Your task to perform on an android device: make emails show in primary in the gmail app Image 0: 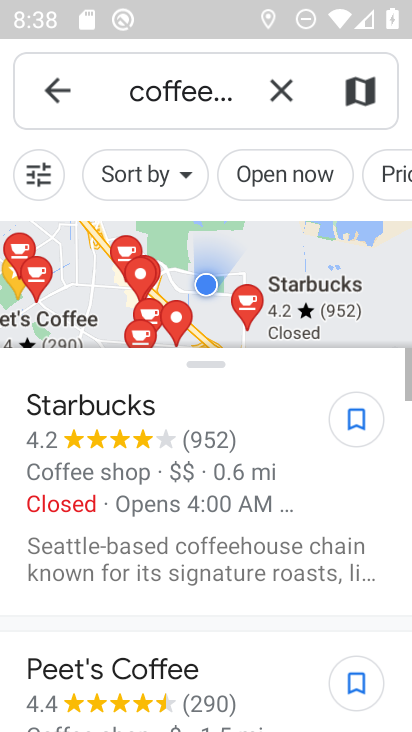
Step 0: press back button
Your task to perform on an android device: make emails show in primary in the gmail app Image 1: 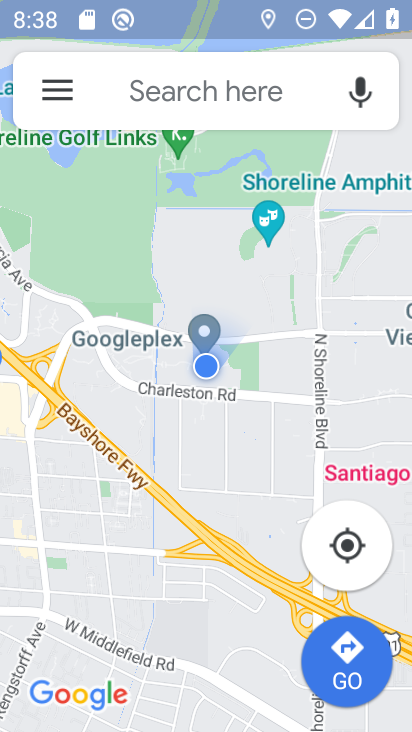
Step 1: press home button
Your task to perform on an android device: make emails show in primary in the gmail app Image 2: 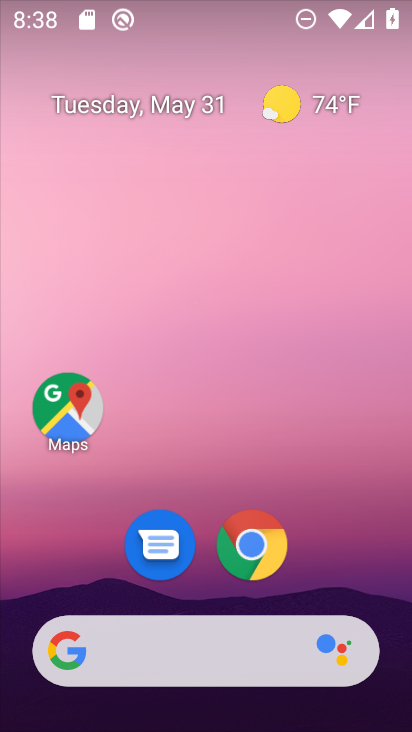
Step 2: drag from (343, 538) to (318, 5)
Your task to perform on an android device: make emails show in primary in the gmail app Image 3: 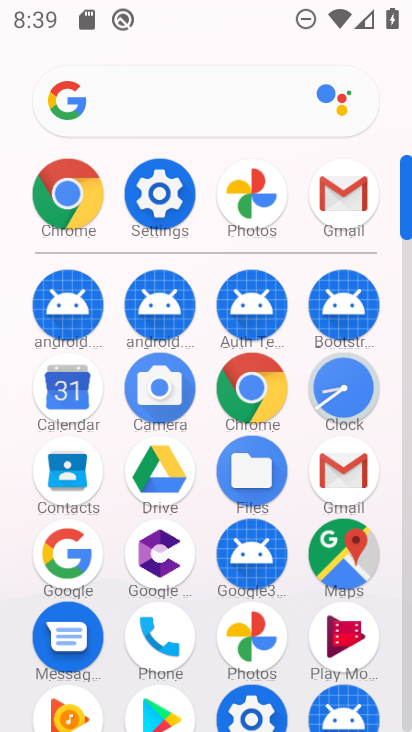
Step 3: click (345, 180)
Your task to perform on an android device: make emails show in primary in the gmail app Image 4: 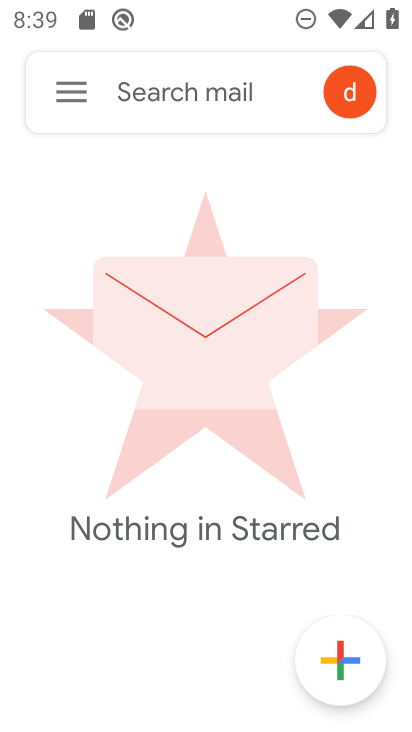
Step 4: click (58, 90)
Your task to perform on an android device: make emails show in primary in the gmail app Image 5: 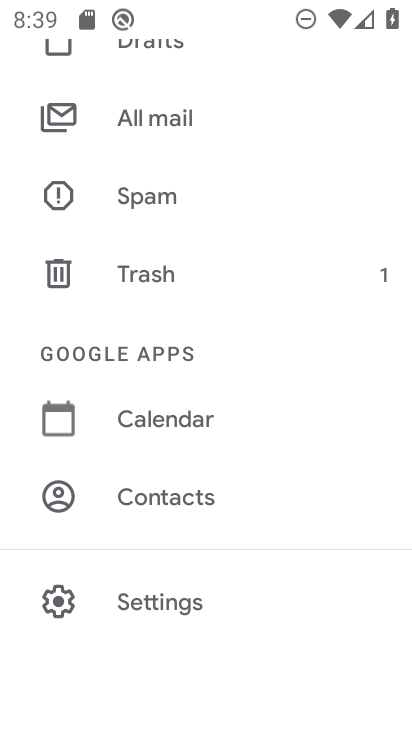
Step 5: click (154, 596)
Your task to perform on an android device: make emails show in primary in the gmail app Image 6: 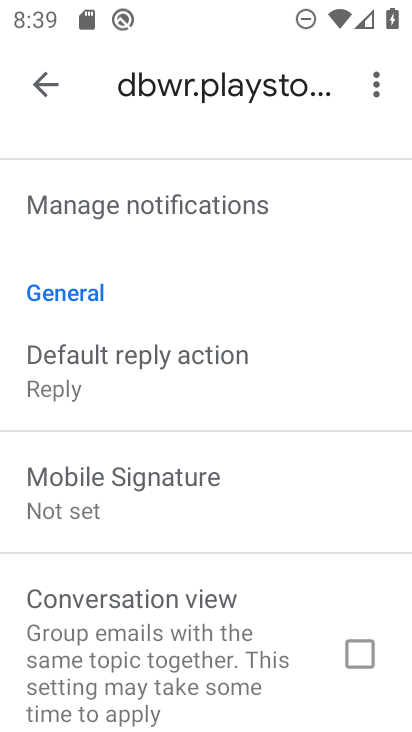
Step 6: drag from (237, 246) to (249, 637)
Your task to perform on an android device: make emails show in primary in the gmail app Image 7: 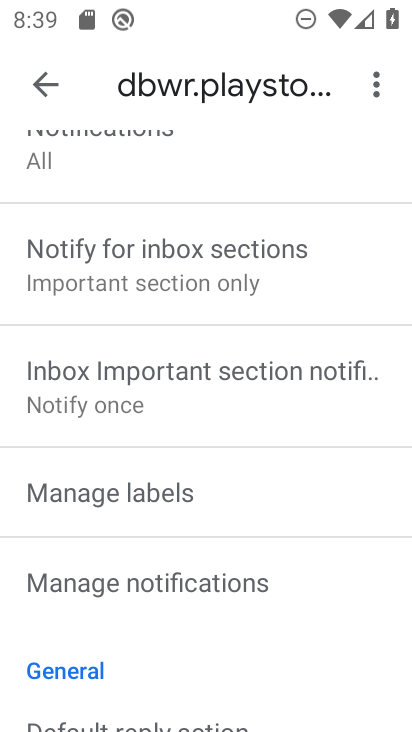
Step 7: drag from (261, 256) to (281, 659)
Your task to perform on an android device: make emails show in primary in the gmail app Image 8: 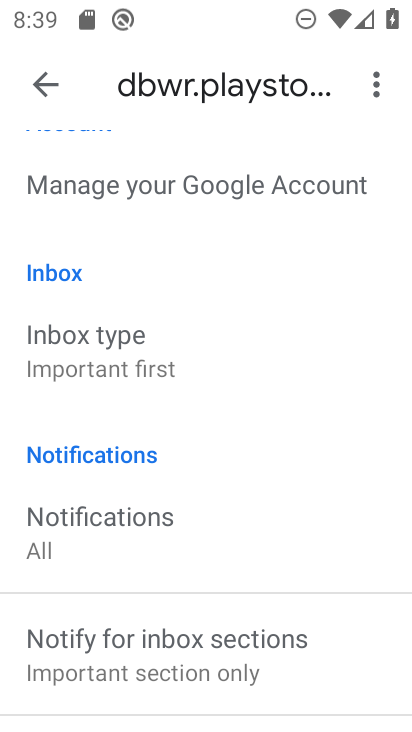
Step 8: click (187, 355)
Your task to perform on an android device: make emails show in primary in the gmail app Image 9: 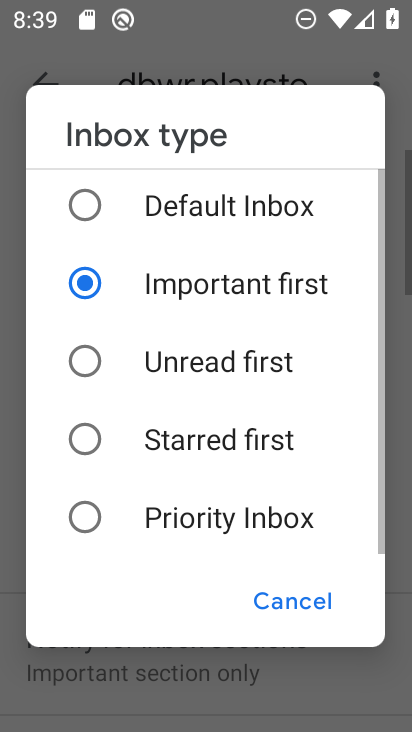
Step 9: click (213, 207)
Your task to perform on an android device: make emails show in primary in the gmail app Image 10: 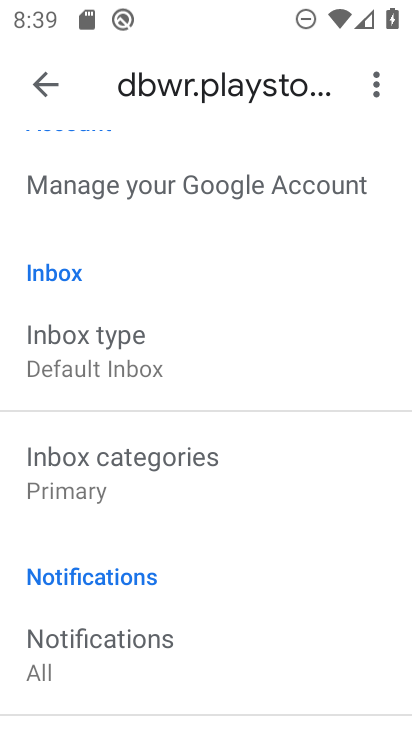
Step 10: click (154, 475)
Your task to perform on an android device: make emails show in primary in the gmail app Image 11: 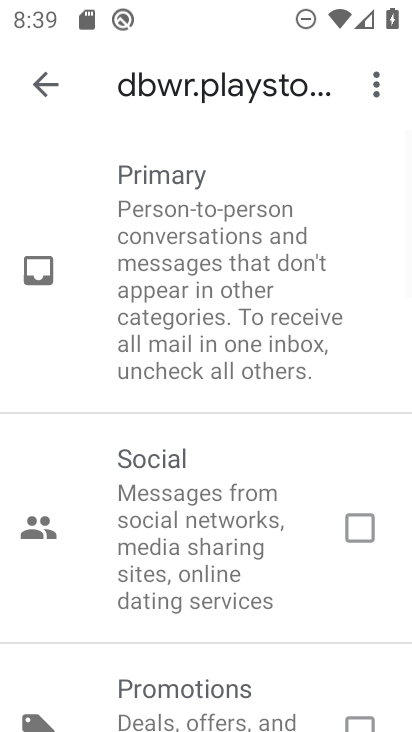
Step 11: click (45, 66)
Your task to perform on an android device: make emails show in primary in the gmail app Image 12: 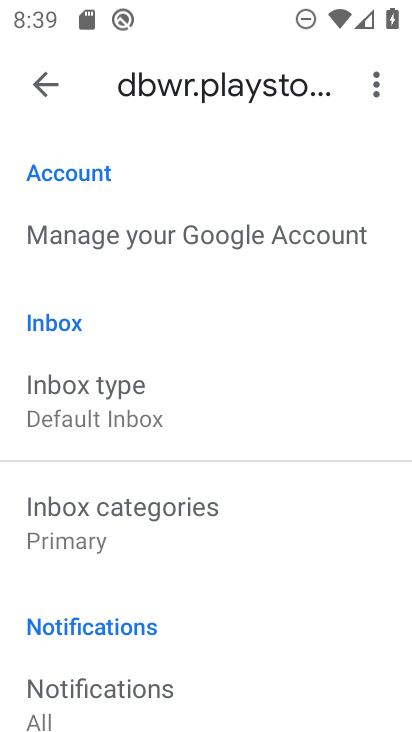
Step 12: task complete